Your task to perform on an android device: Search for vegetarian restaurants on Maps Image 0: 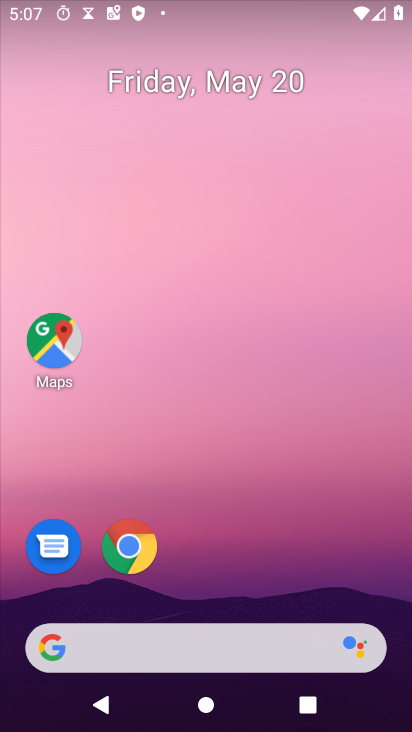
Step 0: click (58, 343)
Your task to perform on an android device: Search for vegetarian restaurants on Maps Image 1: 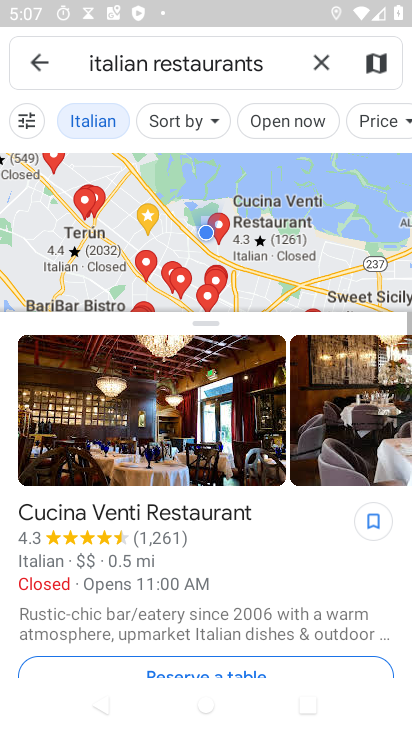
Step 1: click (323, 53)
Your task to perform on an android device: Search for vegetarian restaurants on Maps Image 2: 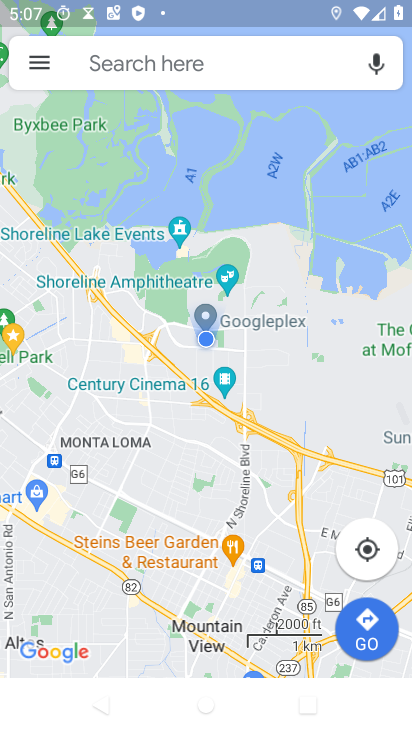
Step 2: click (226, 65)
Your task to perform on an android device: Search for vegetarian restaurants on Maps Image 3: 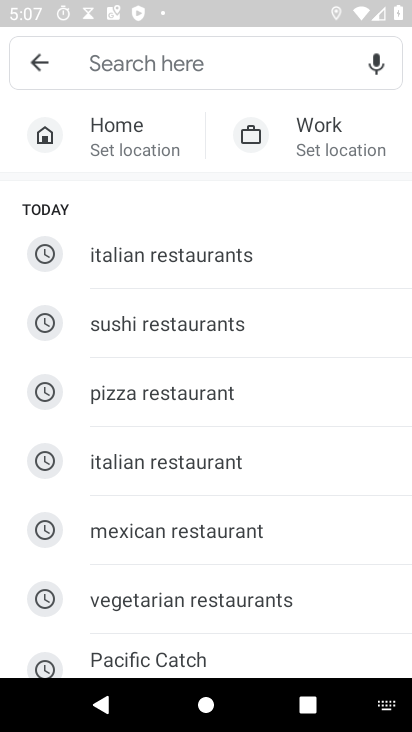
Step 3: type "vegetarian restaurants"
Your task to perform on an android device: Search for vegetarian restaurants on Maps Image 4: 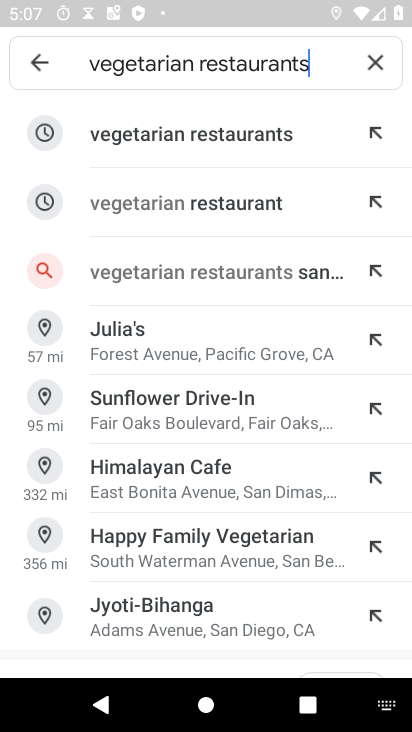
Step 4: click (168, 138)
Your task to perform on an android device: Search for vegetarian restaurants on Maps Image 5: 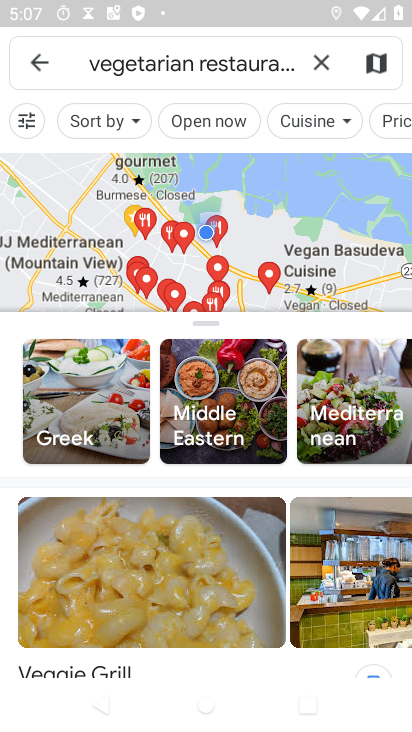
Step 5: task complete